Your task to perform on an android device: What's the weather today? Image 0: 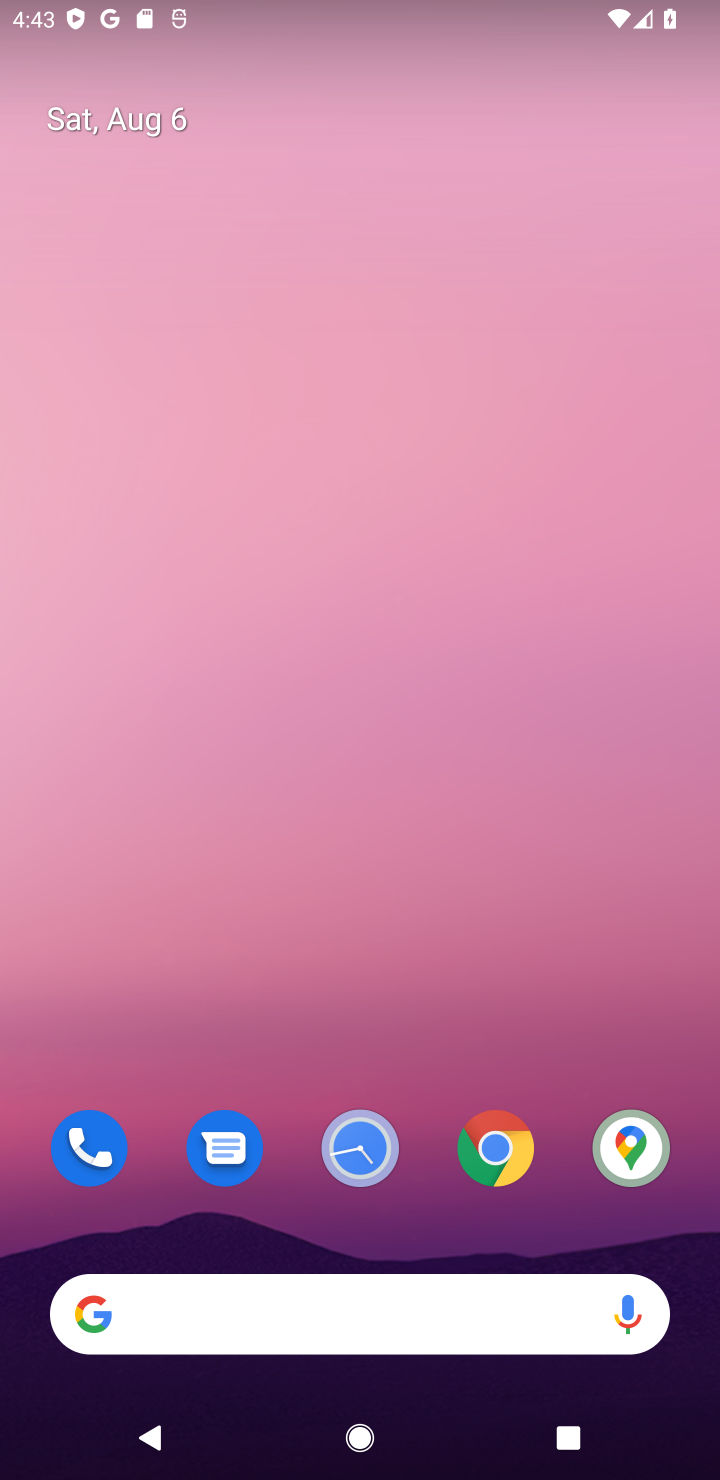
Step 0: drag from (391, 1231) to (298, 53)
Your task to perform on an android device: What's the weather today? Image 1: 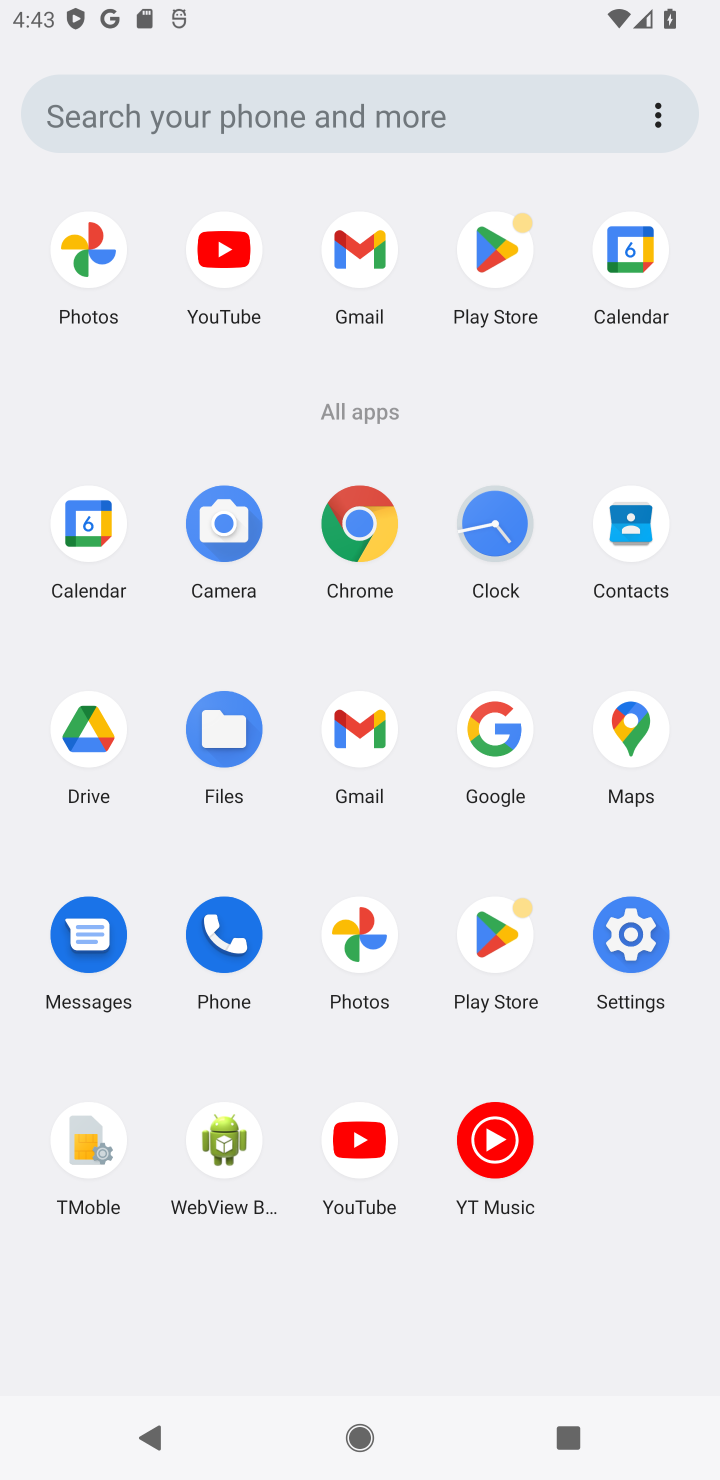
Step 1: click (484, 766)
Your task to perform on an android device: What's the weather today? Image 2: 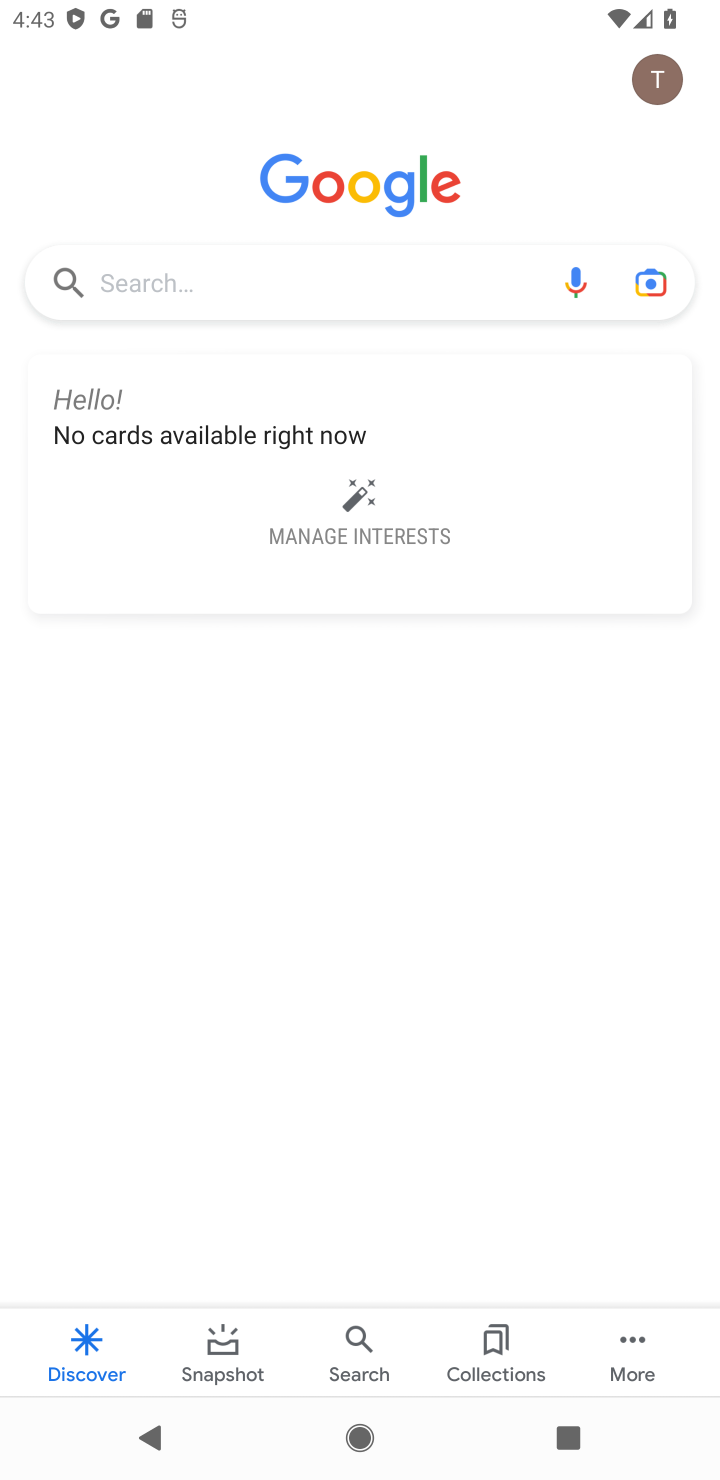
Step 2: click (302, 297)
Your task to perform on an android device: What's the weather today? Image 3: 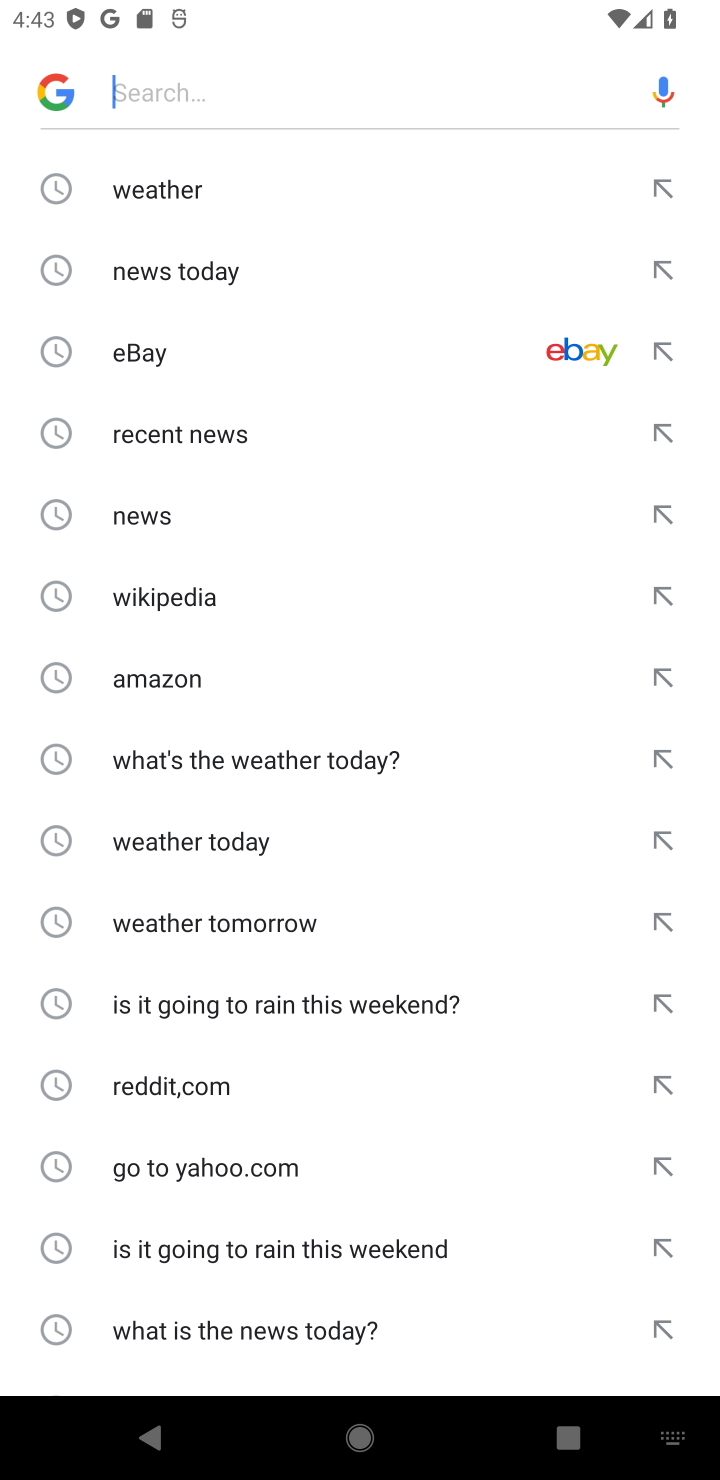
Step 3: click (164, 182)
Your task to perform on an android device: What's the weather today? Image 4: 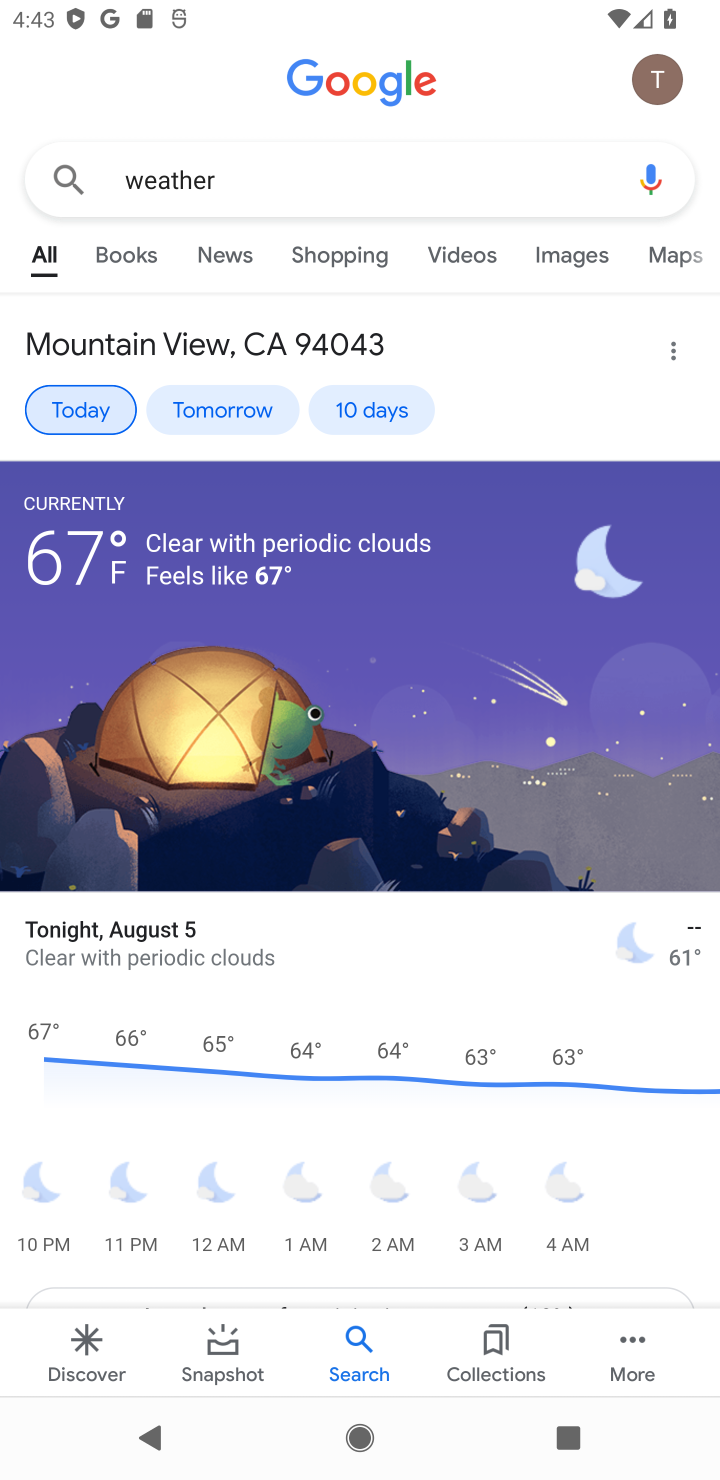
Step 4: click (55, 423)
Your task to perform on an android device: What's the weather today? Image 5: 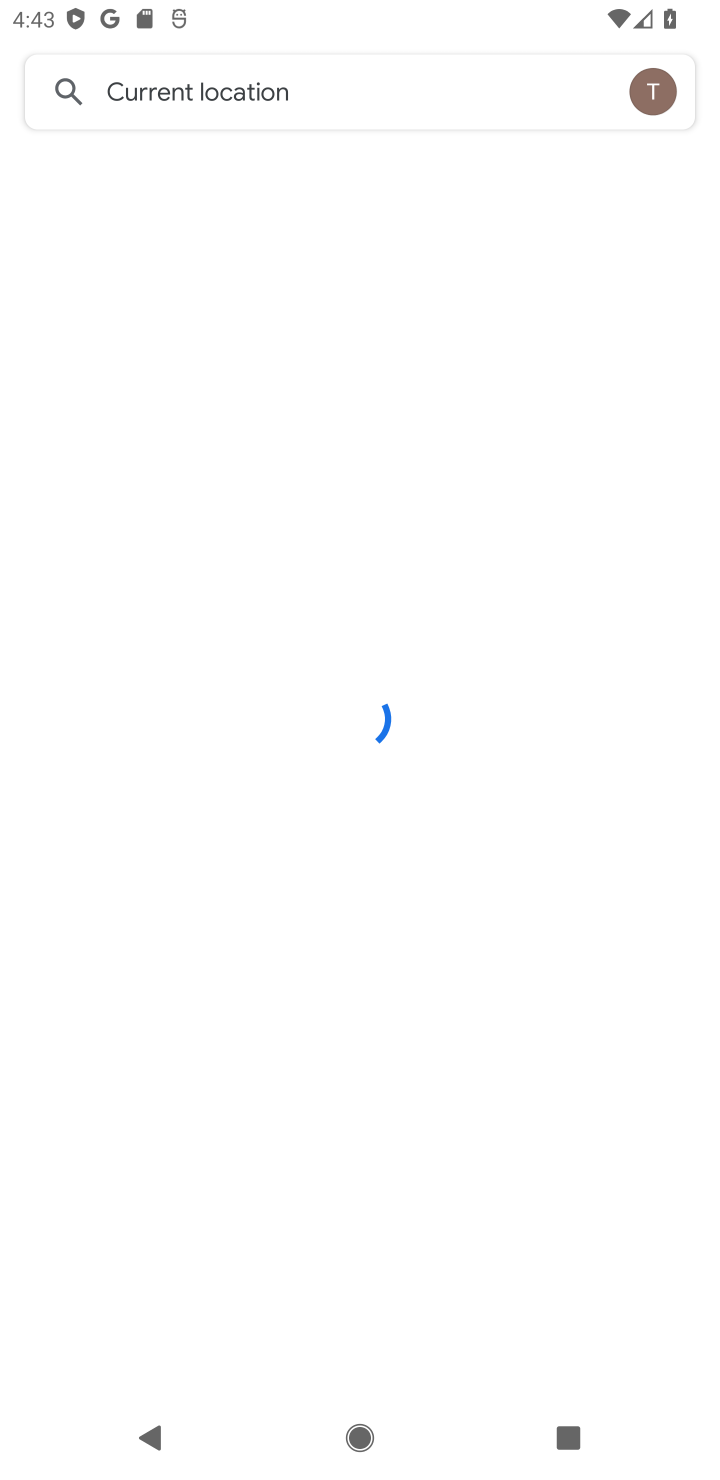
Step 5: task complete